Your task to perform on an android device: check data usage Image 0: 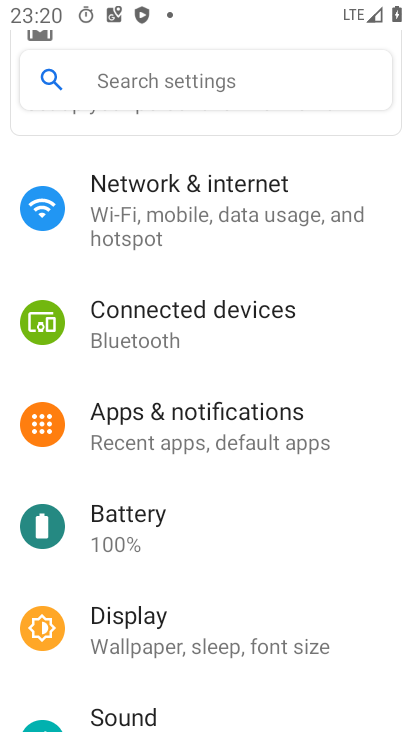
Step 0: click (185, 218)
Your task to perform on an android device: check data usage Image 1: 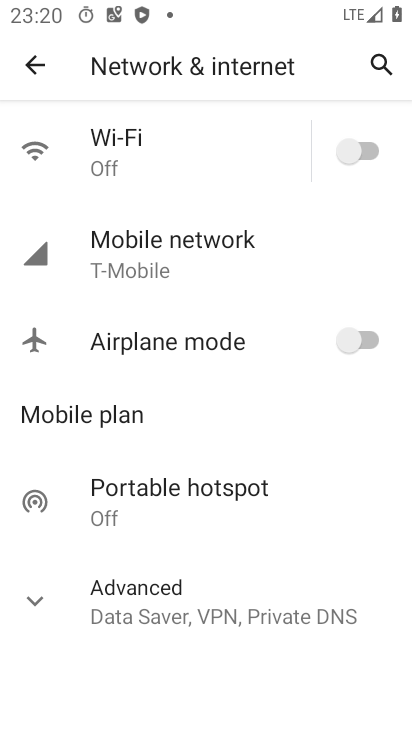
Step 1: click (145, 260)
Your task to perform on an android device: check data usage Image 2: 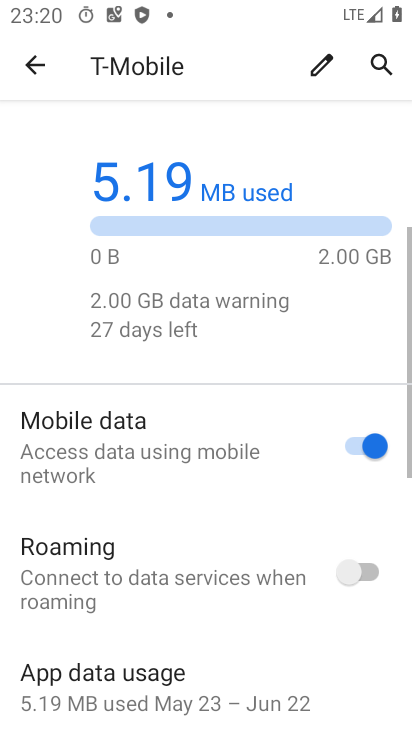
Step 2: drag from (158, 532) to (195, 249)
Your task to perform on an android device: check data usage Image 3: 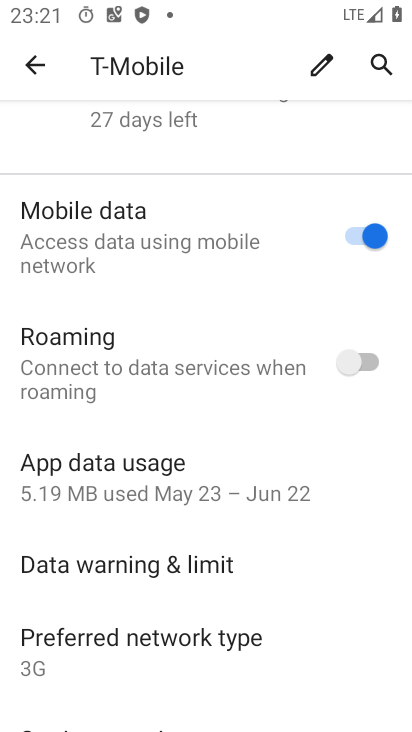
Step 3: click (74, 484)
Your task to perform on an android device: check data usage Image 4: 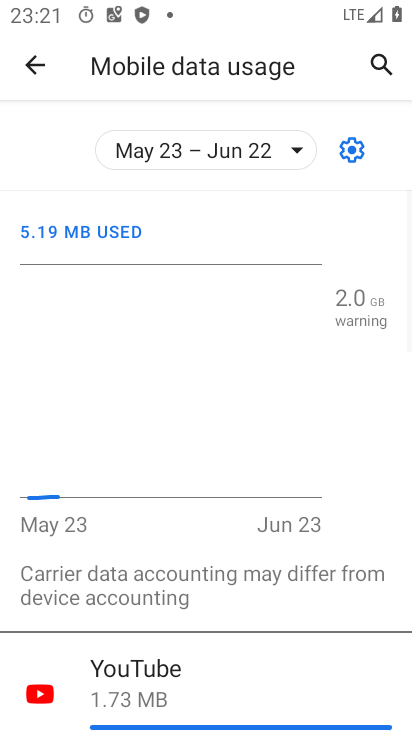
Step 4: task complete